Your task to perform on an android device: see tabs open on other devices in the chrome app Image 0: 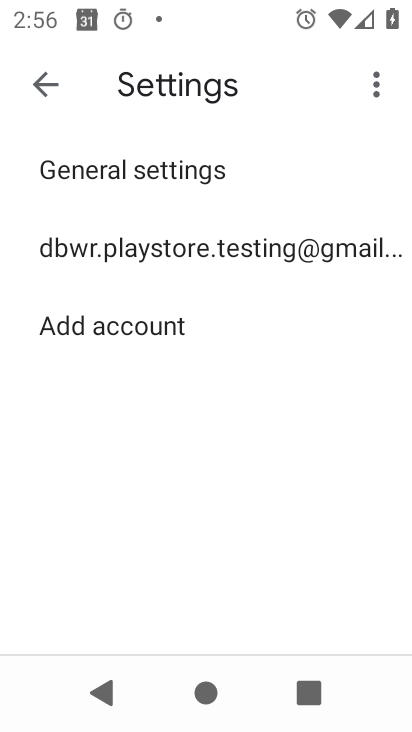
Step 0: press home button
Your task to perform on an android device: see tabs open on other devices in the chrome app Image 1: 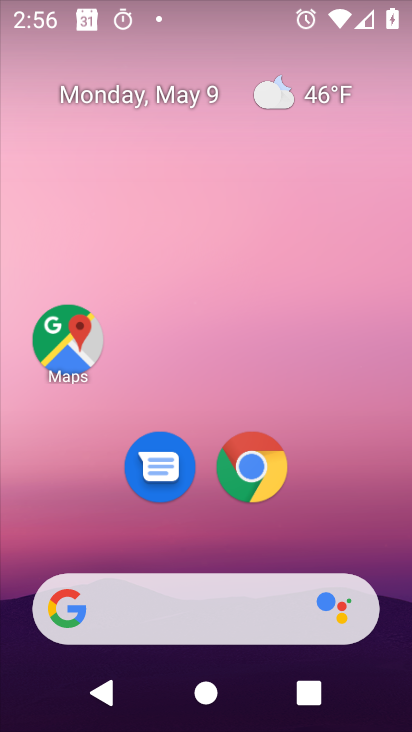
Step 1: click (254, 471)
Your task to perform on an android device: see tabs open on other devices in the chrome app Image 2: 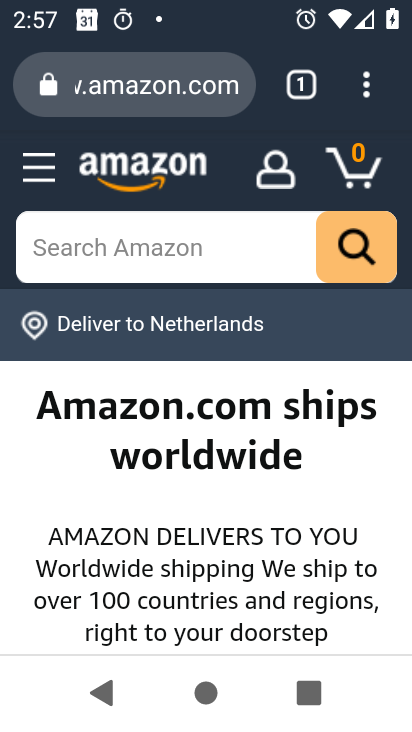
Step 2: click (369, 82)
Your task to perform on an android device: see tabs open on other devices in the chrome app Image 3: 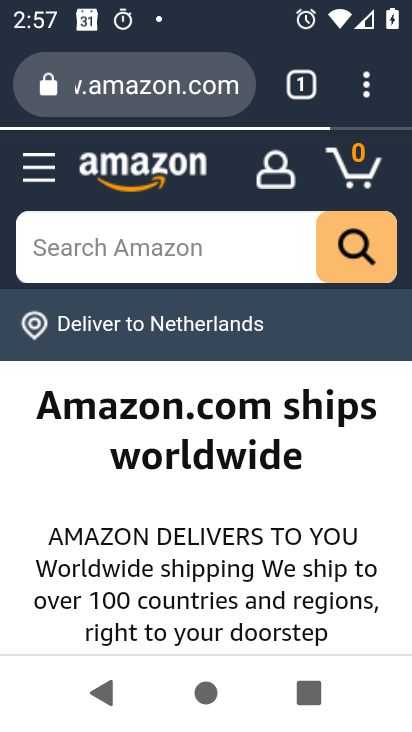
Step 3: task complete